Your task to perform on an android device: turn pop-ups on in chrome Image 0: 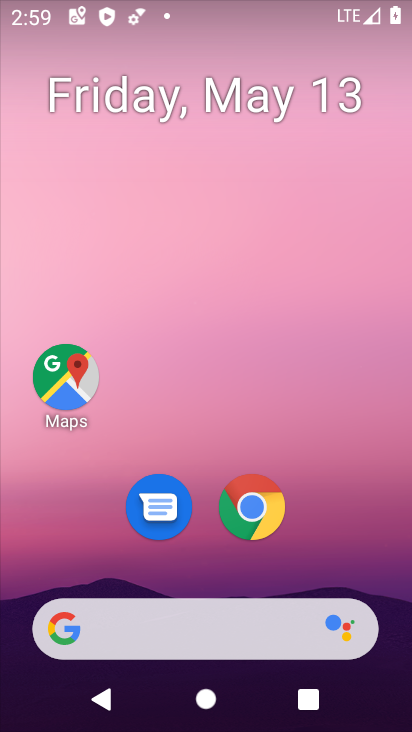
Step 0: click (253, 507)
Your task to perform on an android device: turn pop-ups on in chrome Image 1: 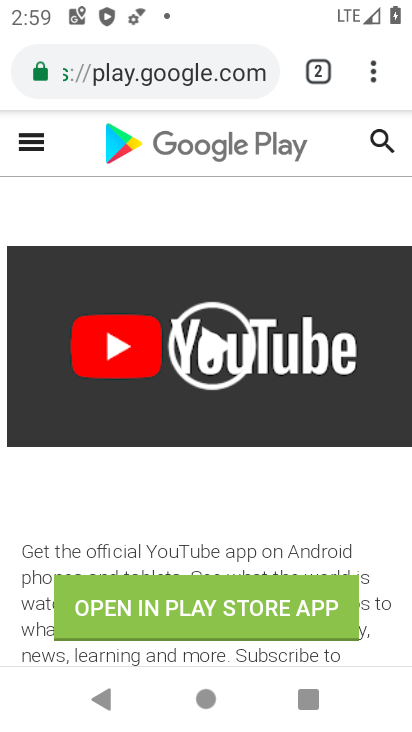
Step 1: click (375, 63)
Your task to perform on an android device: turn pop-ups on in chrome Image 2: 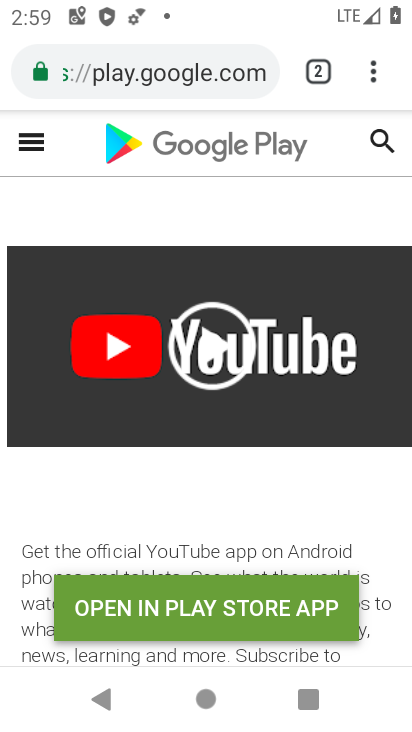
Step 2: click (356, 74)
Your task to perform on an android device: turn pop-ups on in chrome Image 3: 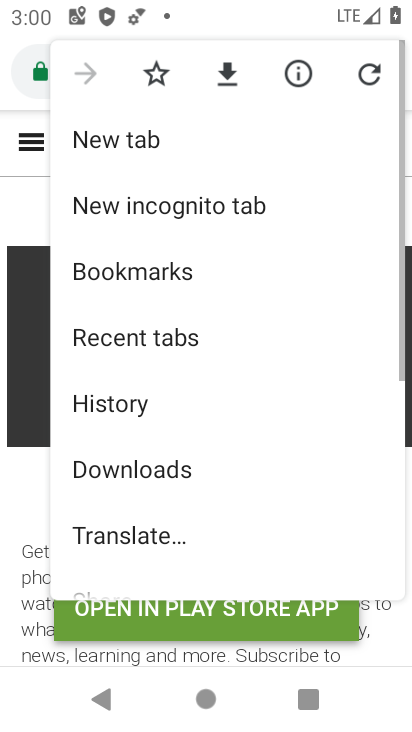
Step 3: click (356, 74)
Your task to perform on an android device: turn pop-ups on in chrome Image 4: 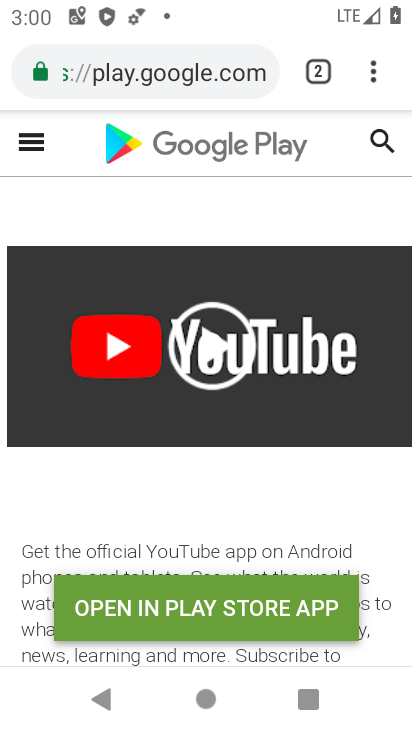
Step 4: click (372, 72)
Your task to perform on an android device: turn pop-ups on in chrome Image 5: 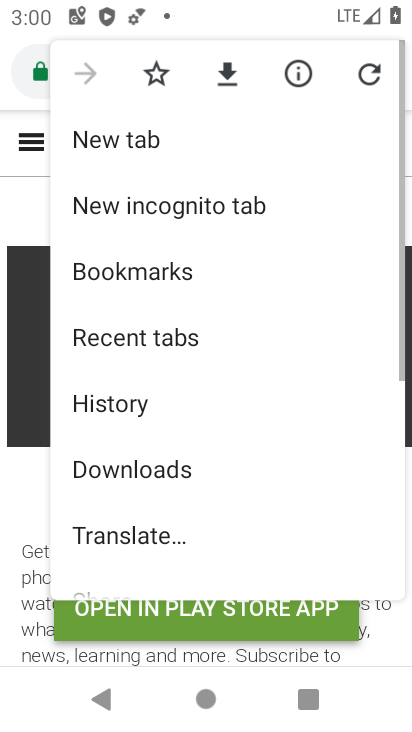
Step 5: drag from (126, 513) to (100, 55)
Your task to perform on an android device: turn pop-ups on in chrome Image 6: 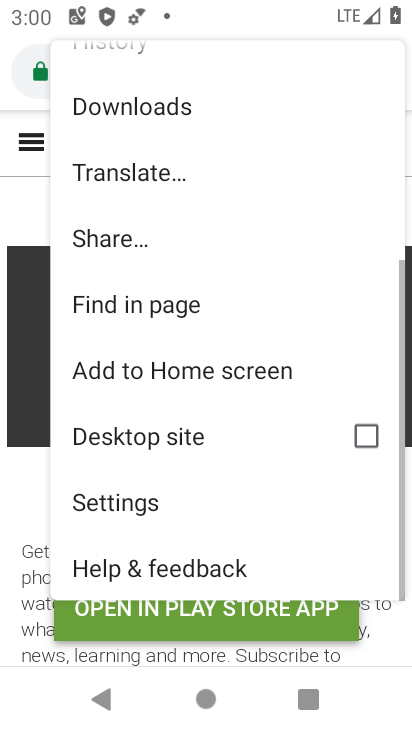
Step 6: click (118, 511)
Your task to perform on an android device: turn pop-ups on in chrome Image 7: 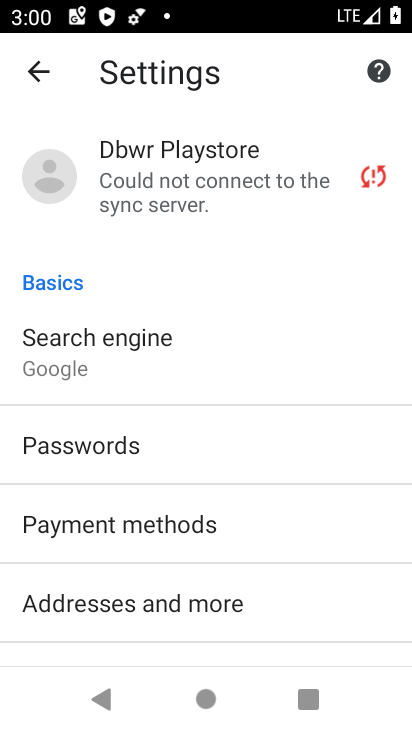
Step 7: drag from (188, 563) to (193, 7)
Your task to perform on an android device: turn pop-ups on in chrome Image 8: 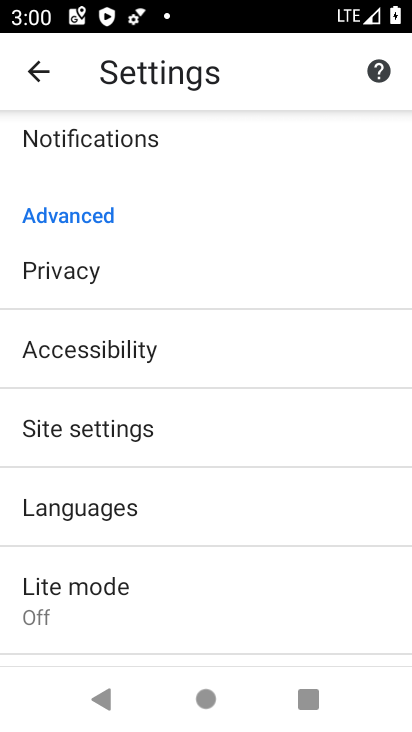
Step 8: click (126, 429)
Your task to perform on an android device: turn pop-ups on in chrome Image 9: 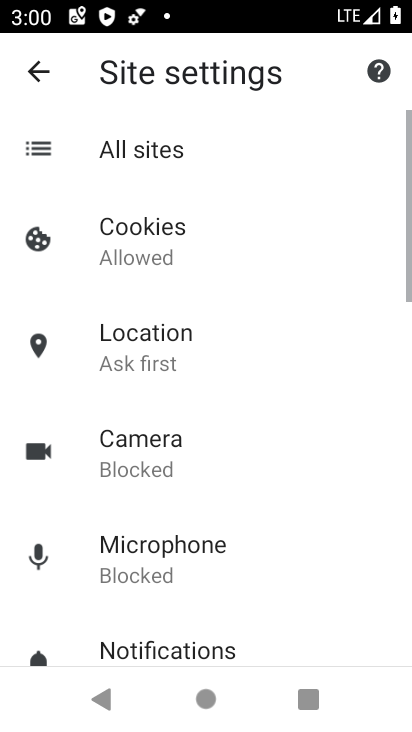
Step 9: drag from (176, 604) to (190, 12)
Your task to perform on an android device: turn pop-ups on in chrome Image 10: 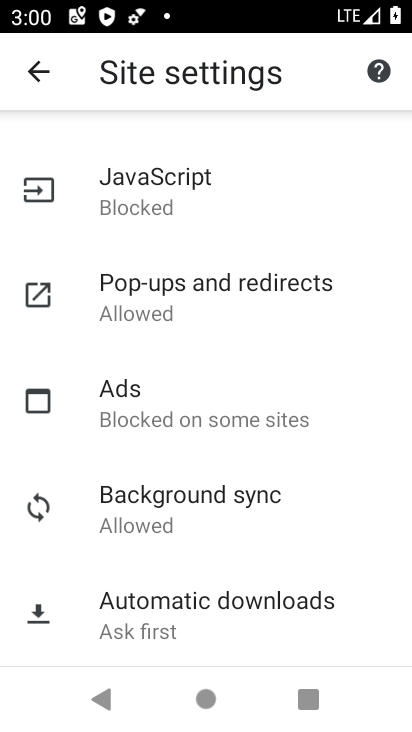
Step 10: click (180, 287)
Your task to perform on an android device: turn pop-ups on in chrome Image 11: 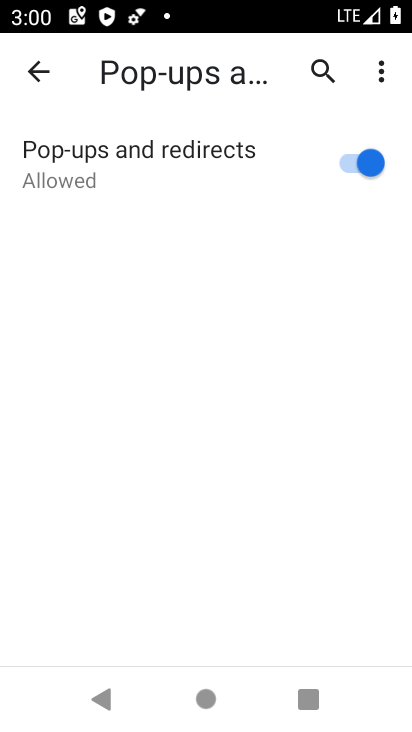
Step 11: task complete